Your task to perform on an android device: Set the phone to "Do not disturb". Image 0: 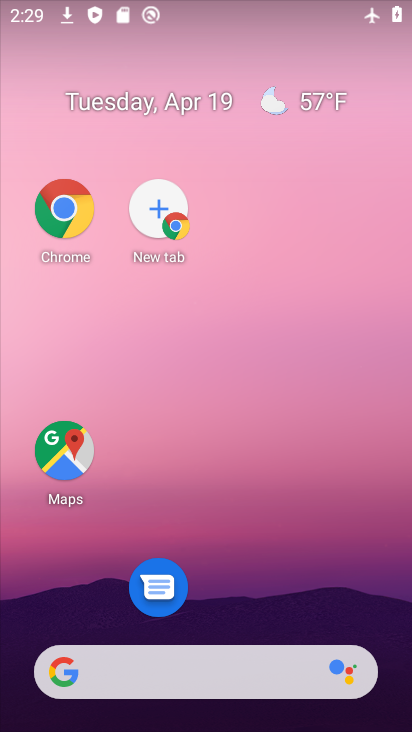
Step 0: drag from (290, 727) to (169, 163)
Your task to perform on an android device: Set the phone to "Do not disturb". Image 1: 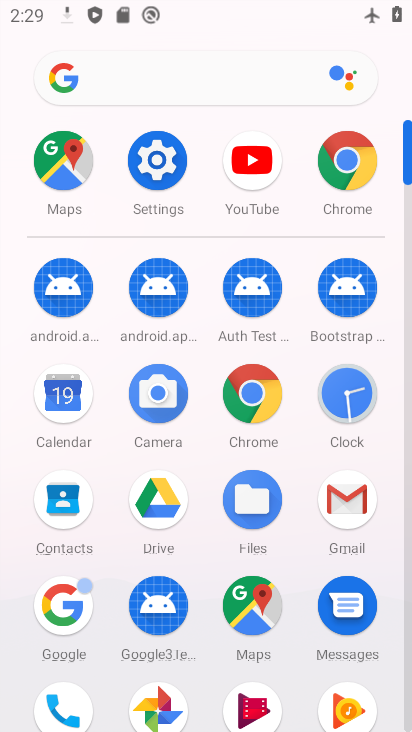
Step 1: click (159, 155)
Your task to perform on an android device: Set the phone to "Do not disturb". Image 2: 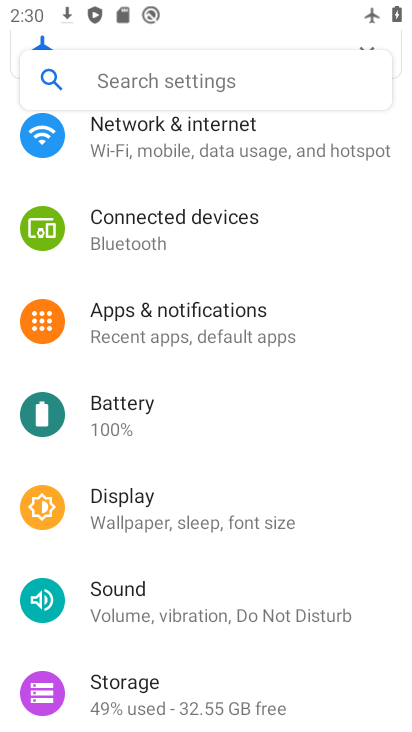
Step 2: drag from (241, 544) to (263, 259)
Your task to perform on an android device: Set the phone to "Do not disturb". Image 3: 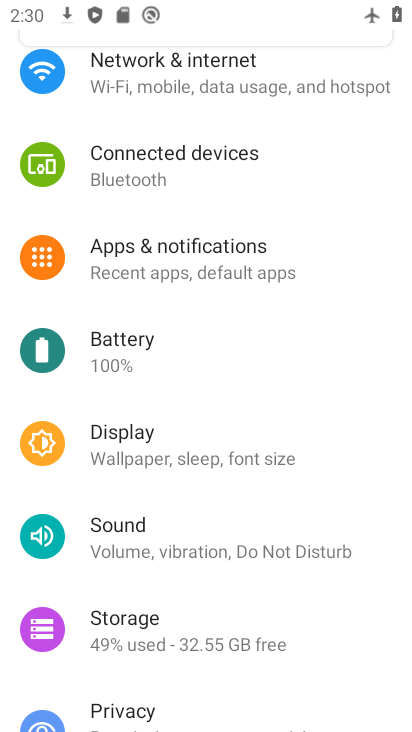
Step 3: click (126, 534)
Your task to perform on an android device: Set the phone to "Do not disturb". Image 4: 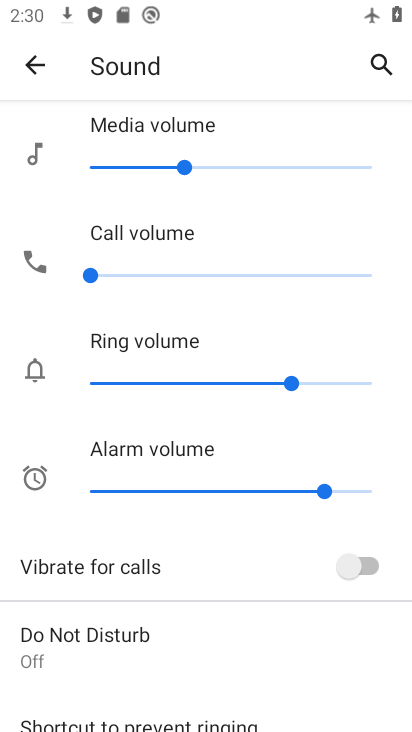
Step 4: click (51, 634)
Your task to perform on an android device: Set the phone to "Do not disturb". Image 5: 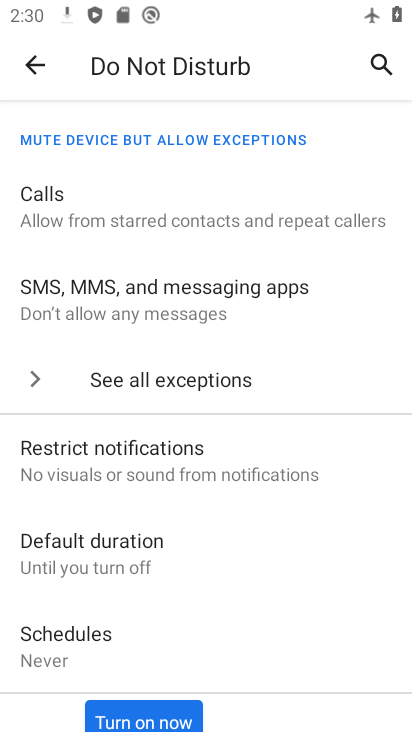
Step 5: click (121, 709)
Your task to perform on an android device: Set the phone to "Do not disturb". Image 6: 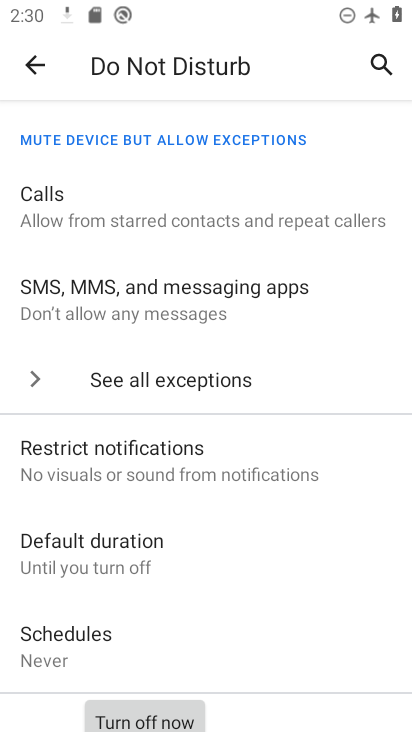
Step 6: task complete